Your task to perform on an android device: delete browsing data in the chrome app Image 0: 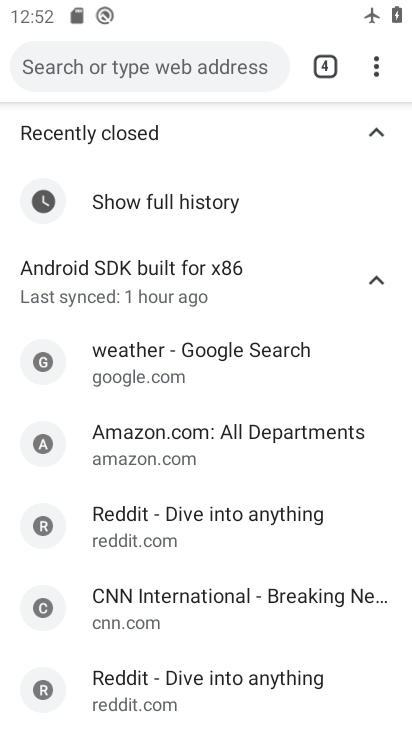
Step 0: press home button
Your task to perform on an android device: delete browsing data in the chrome app Image 1: 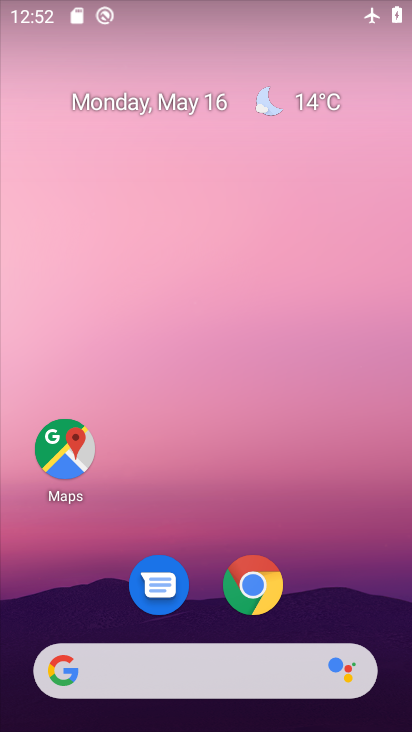
Step 1: click (265, 566)
Your task to perform on an android device: delete browsing data in the chrome app Image 2: 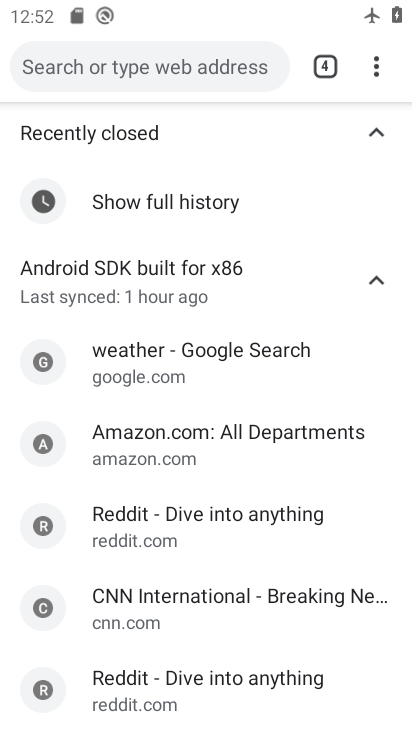
Step 2: click (374, 71)
Your task to perform on an android device: delete browsing data in the chrome app Image 3: 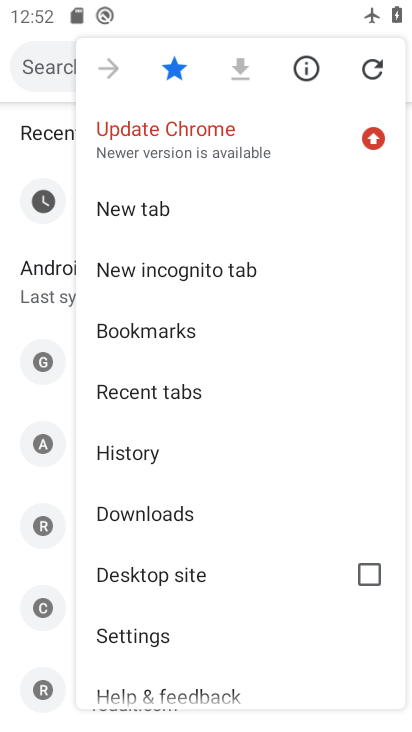
Step 3: click (143, 454)
Your task to perform on an android device: delete browsing data in the chrome app Image 4: 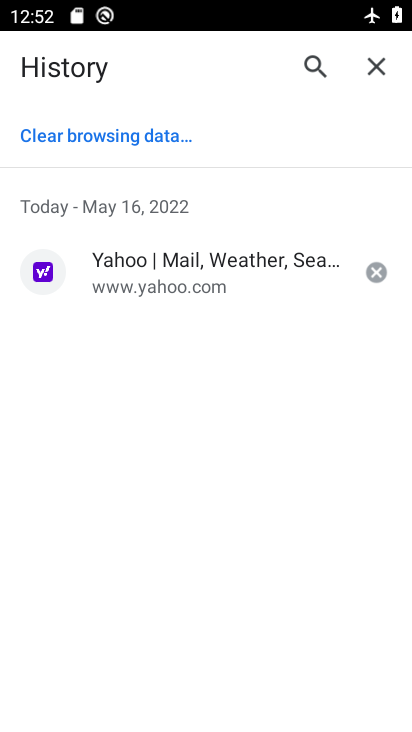
Step 4: click (143, 126)
Your task to perform on an android device: delete browsing data in the chrome app Image 5: 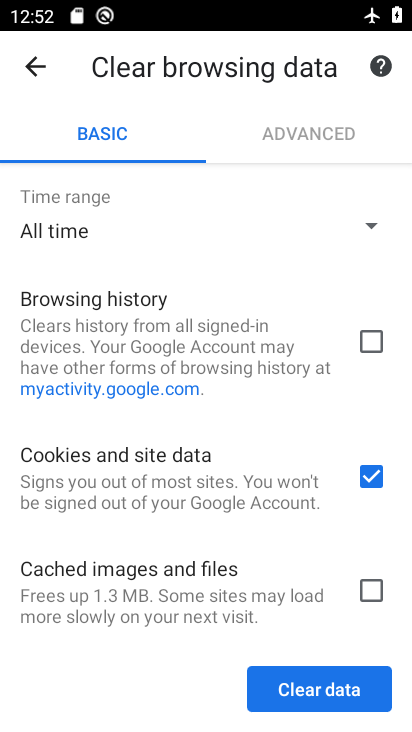
Step 5: click (361, 336)
Your task to perform on an android device: delete browsing data in the chrome app Image 6: 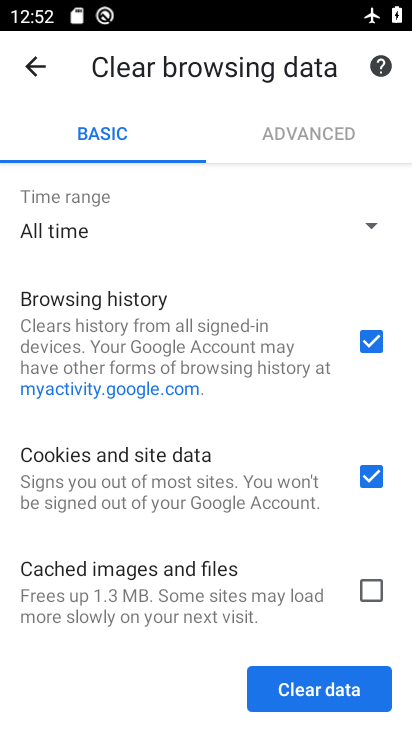
Step 6: click (373, 595)
Your task to perform on an android device: delete browsing data in the chrome app Image 7: 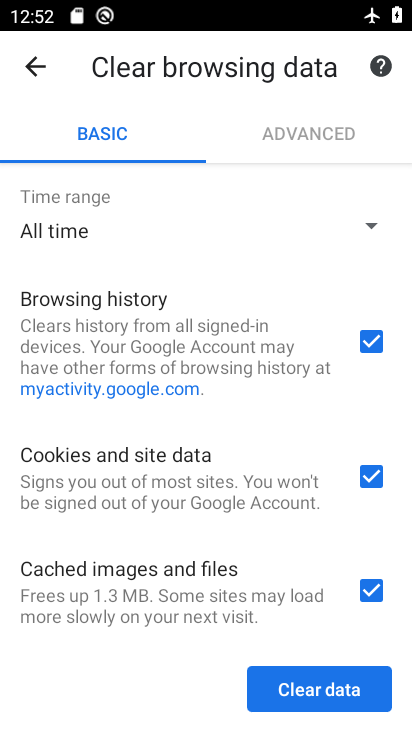
Step 7: click (351, 684)
Your task to perform on an android device: delete browsing data in the chrome app Image 8: 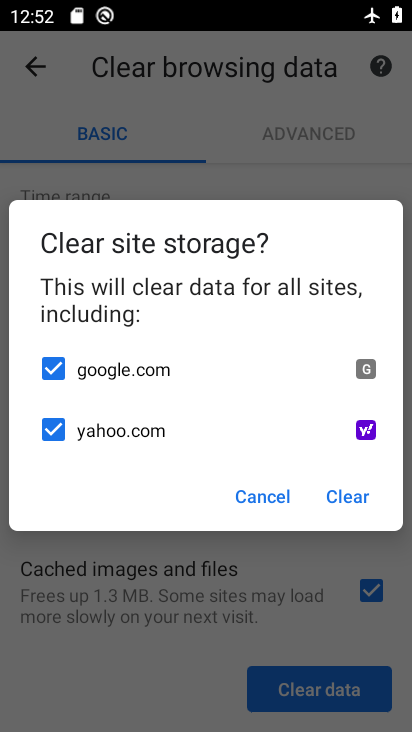
Step 8: click (344, 491)
Your task to perform on an android device: delete browsing data in the chrome app Image 9: 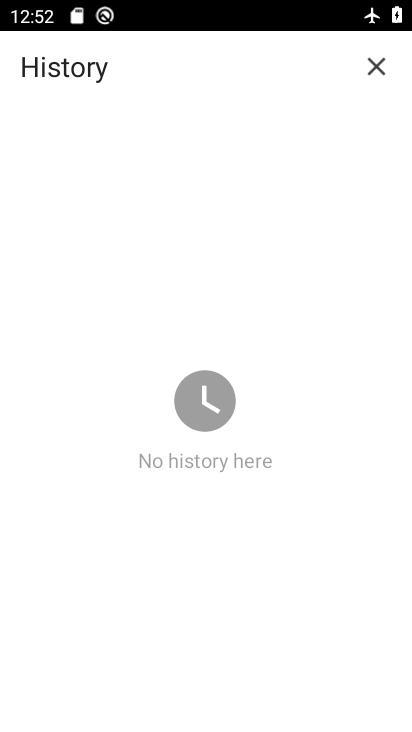
Step 9: task complete